Your task to perform on an android device: Open Youtube and go to "Your channel" Image 0: 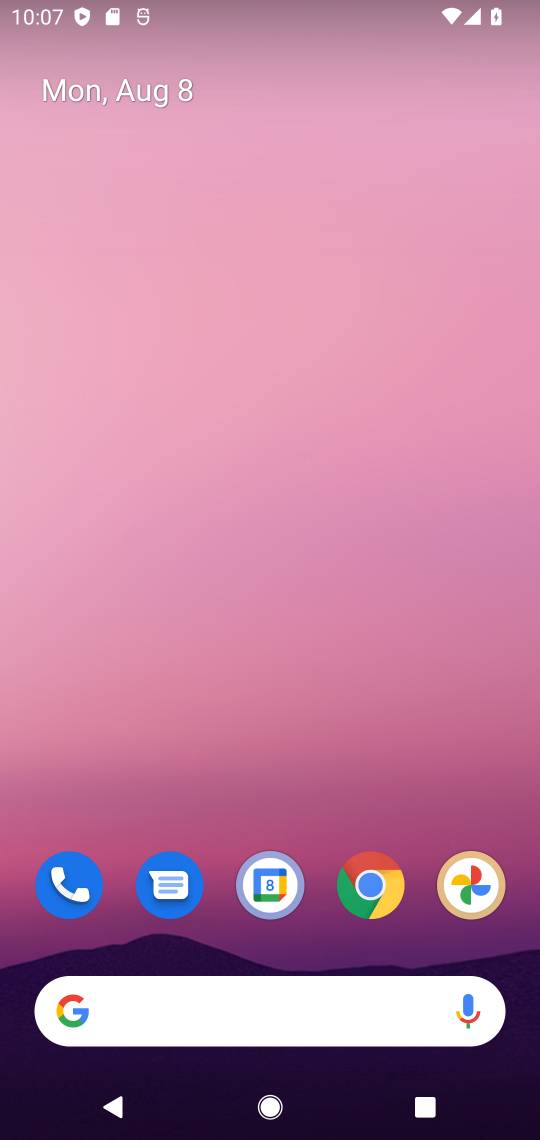
Step 0: drag from (172, 1054) to (221, 359)
Your task to perform on an android device: Open Youtube and go to "Your channel" Image 1: 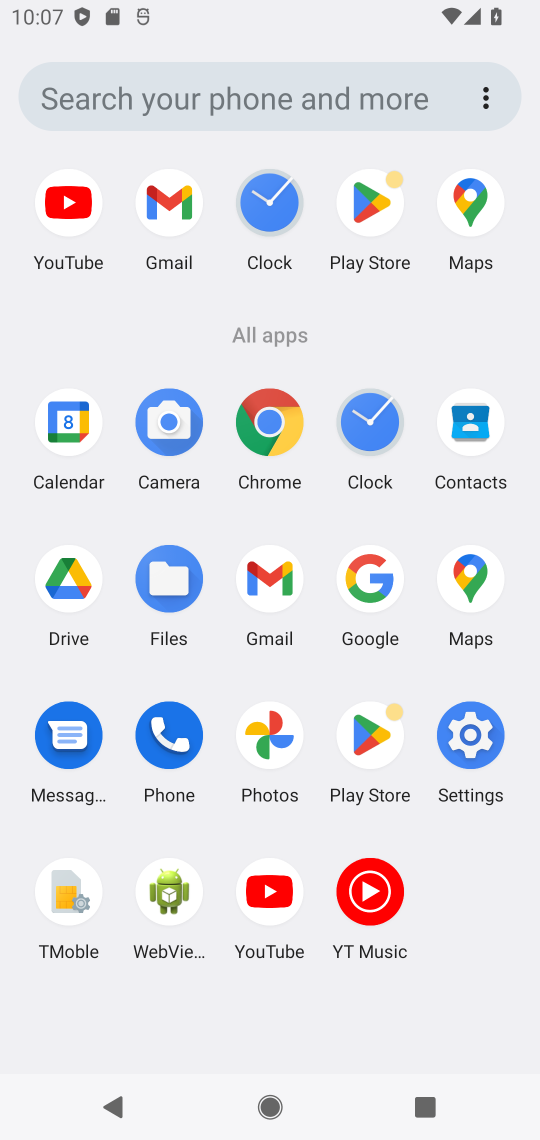
Step 1: click (277, 893)
Your task to perform on an android device: Open Youtube and go to "Your channel" Image 2: 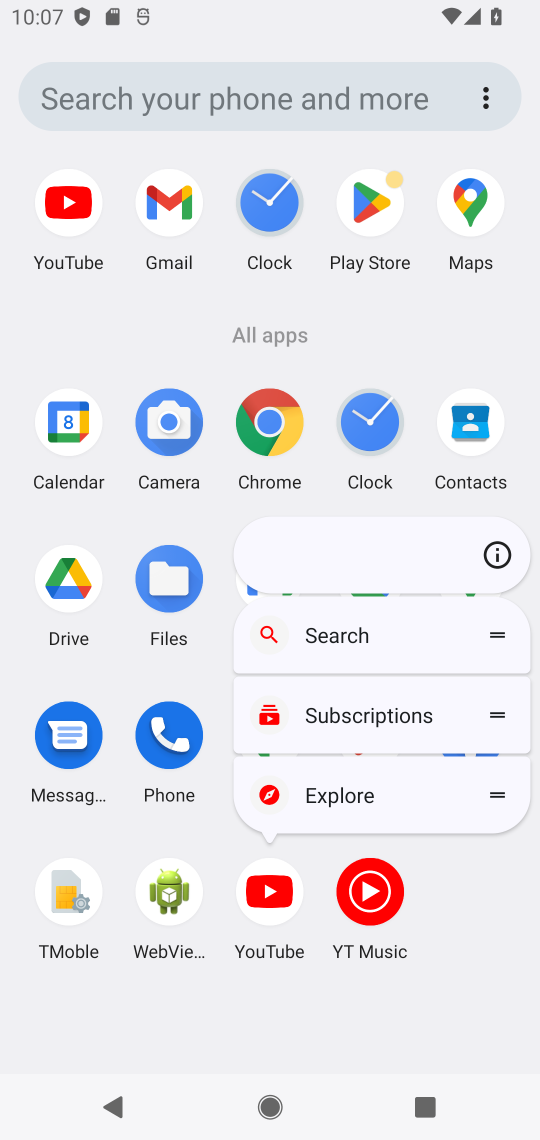
Step 2: click (277, 893)
Your task to perform on an android device: Open Youtube and go to "Your channel" Image 3: 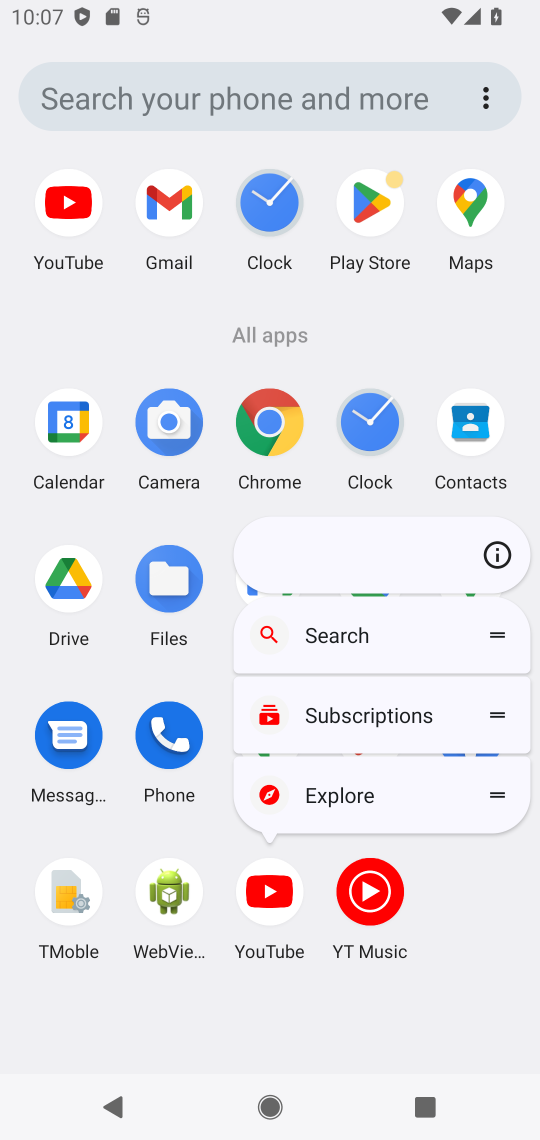
Step 3: click (277, 893)
Your task to perform on an android device: Open Youtube and go to "Your channel" Image 4: 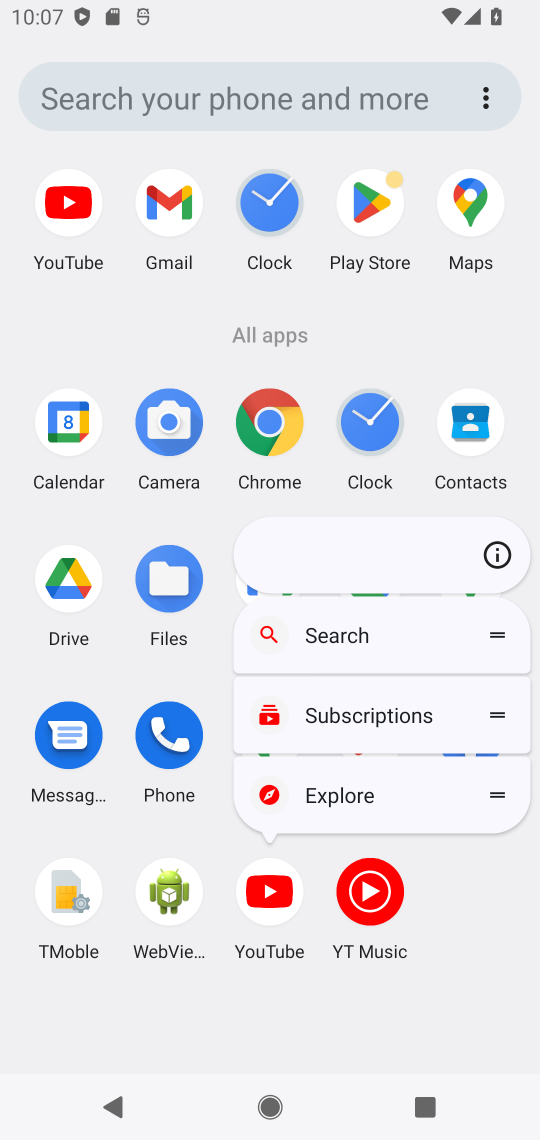
Step 4: click (277, 893)
Your task to perform on an android device: Open Youtube and go to "Your channel" Image 5: 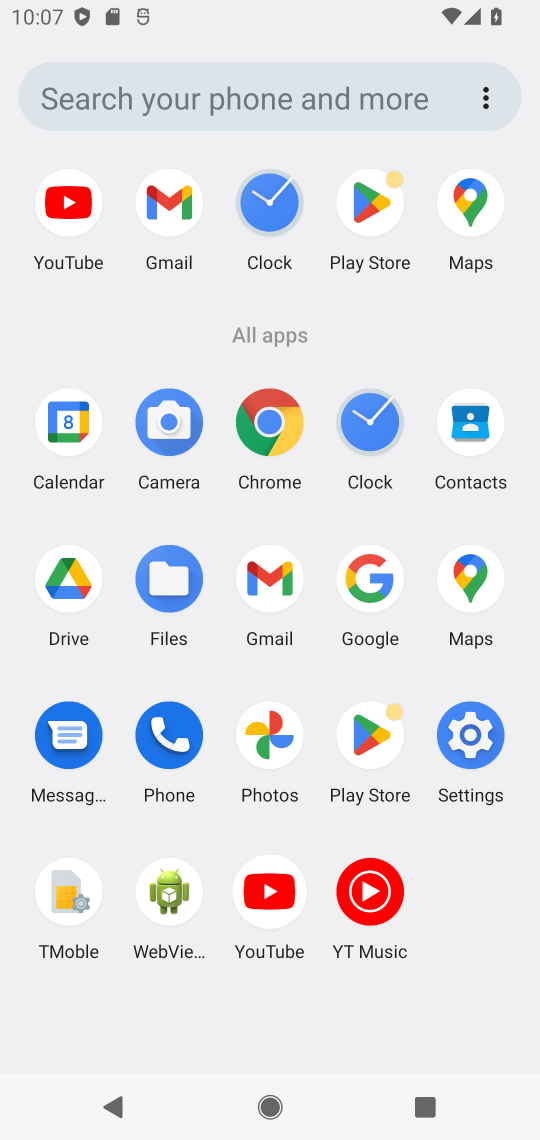
Step 5: click (277, 893)
Your task to perform on an android device: Open Youtube and go to "Your channel" Image 6: 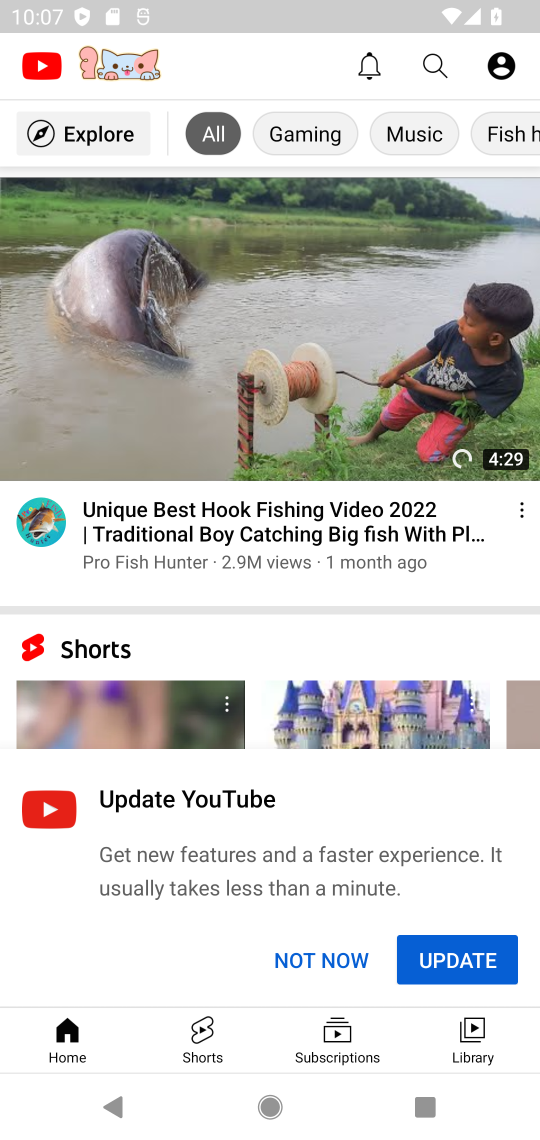
Step 6: click (507, 66)
Your task to perform on an android device: Open Youtube and go to "Your channel" Image 7: 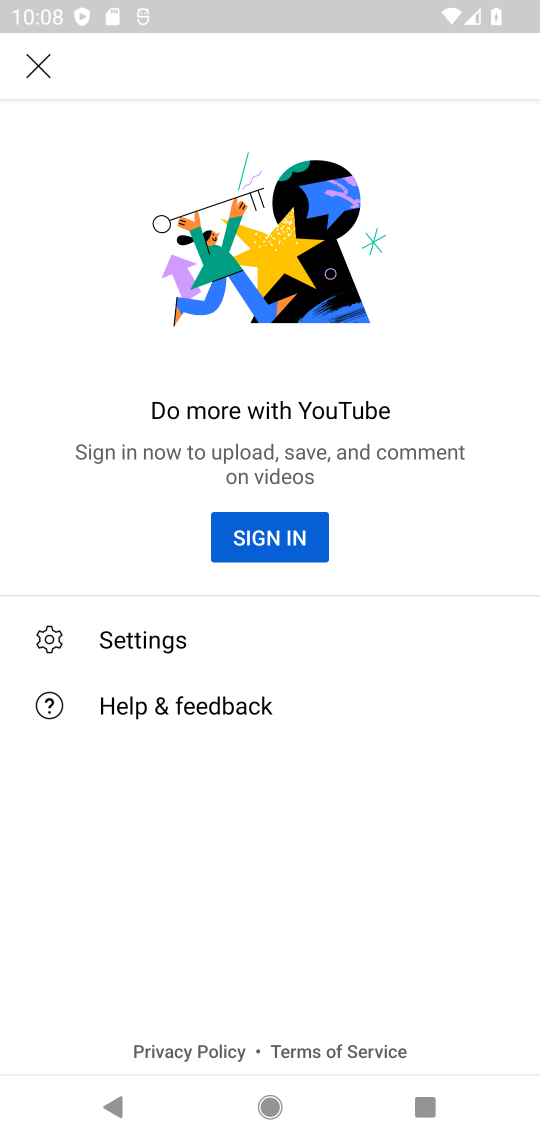
Step 7: task complete